Your task to perform on an android device: star an email in the gmail app Image 0: 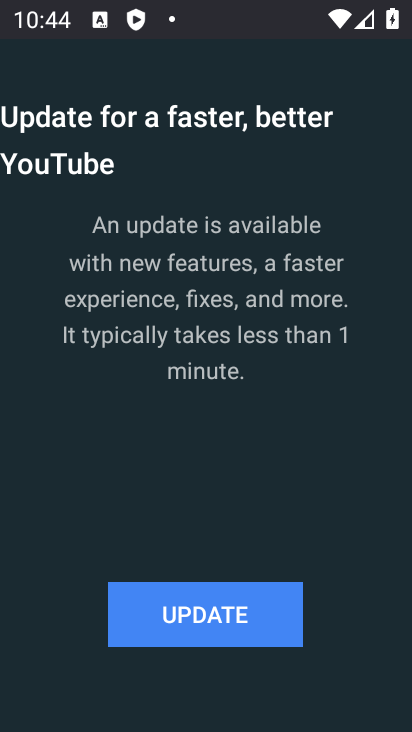
Step 0: press home button
Your task to perform on an android device: star an email in the gmail app Image 1: 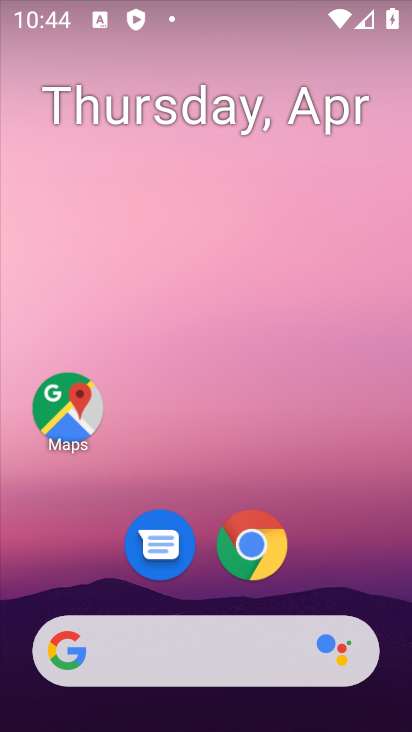
Step 1: drag from (53, 618) to (258, 265)
Your task to perform on an android device: star an email in the gmail app Image 2: 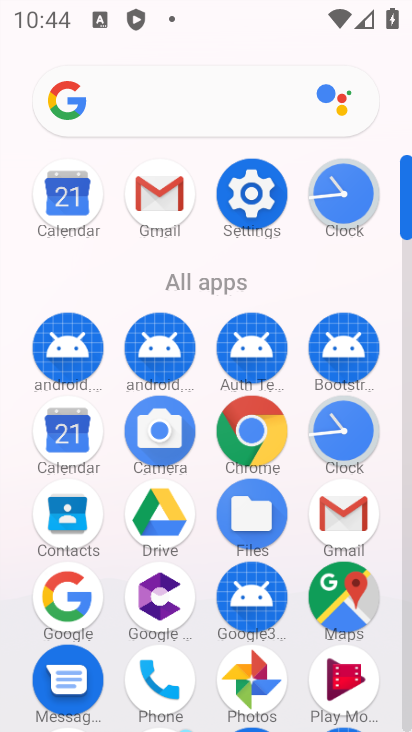
Step 2: click (159, 191)
Your task to perform on an android device: star an email in the gmail app Image 3: 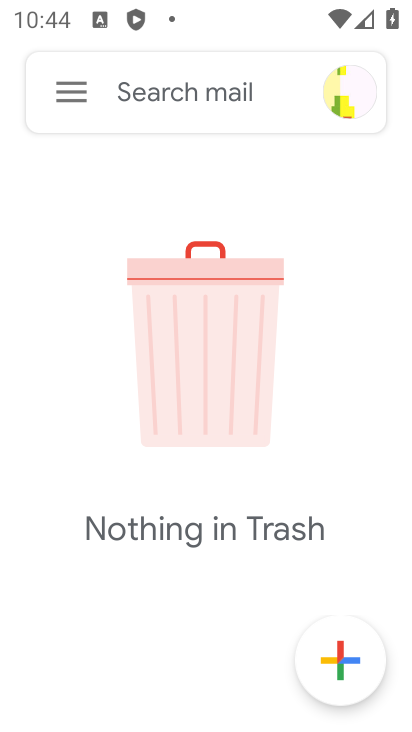
Step 3: click (300, 206)
Your task to perform on an android device: star an email in the gmail app Image 4: 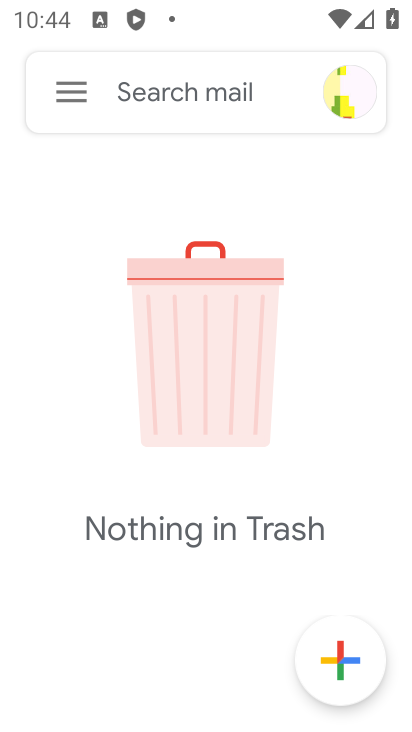
Step 4: click (67, 87)
Your task to perform on an android device: star an email in the gmail app Image 5: 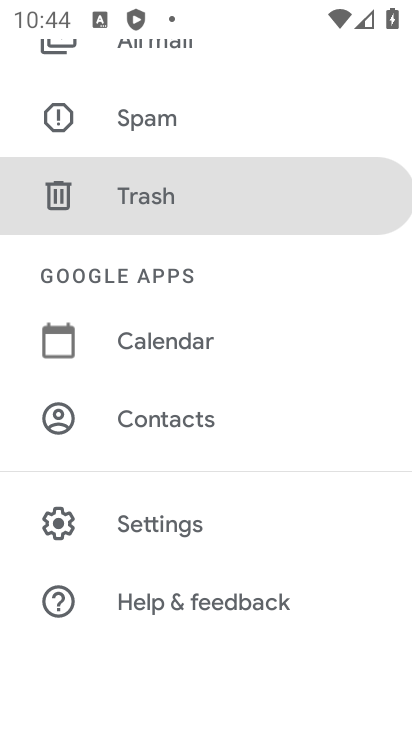
Step 5: task complete